Your task to perform on an android device: change your default location settings in chrome Image 0: 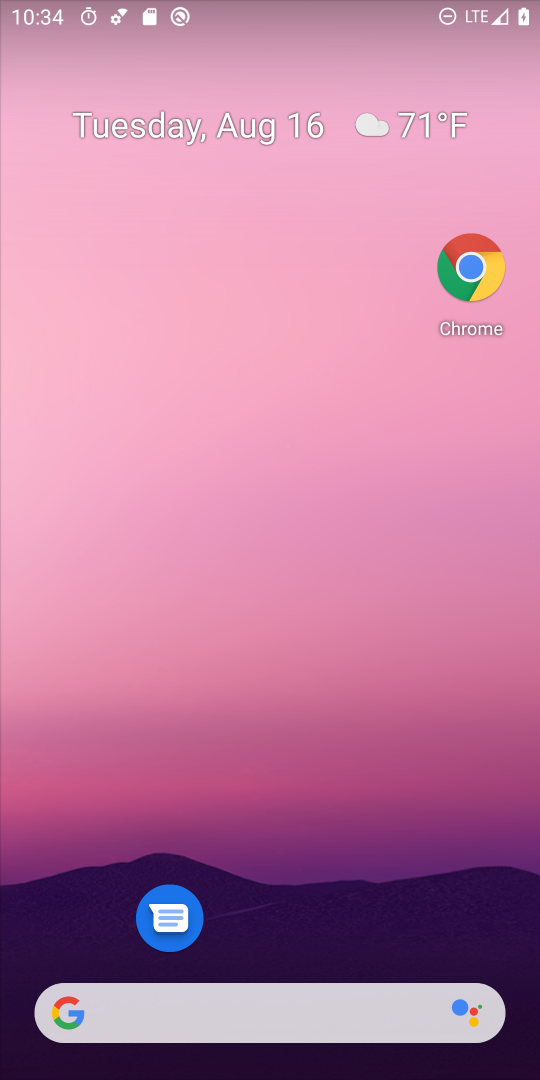
Step 0: drag from (380, 962) to (426, 7)
Your task to perform on an android device: change your default location settings in chrome Image 1: 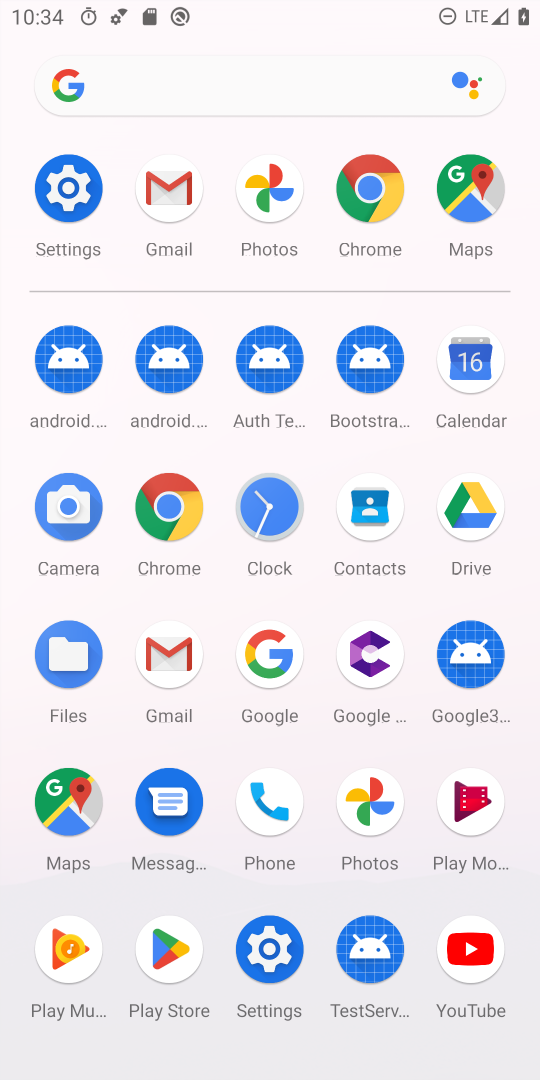
Step 1: click (367, 226)
Your task to perform on an android device: change your default location settings in chrome Image 2: 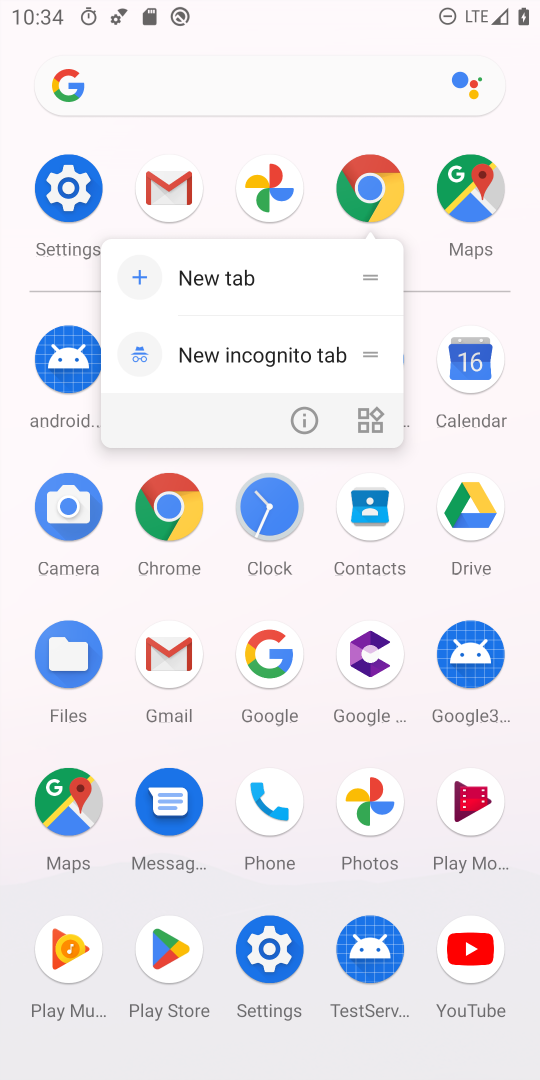
Step 2: click (384, 198)
Your task to perform on an android device: change your default location settings in chrome Image 3: 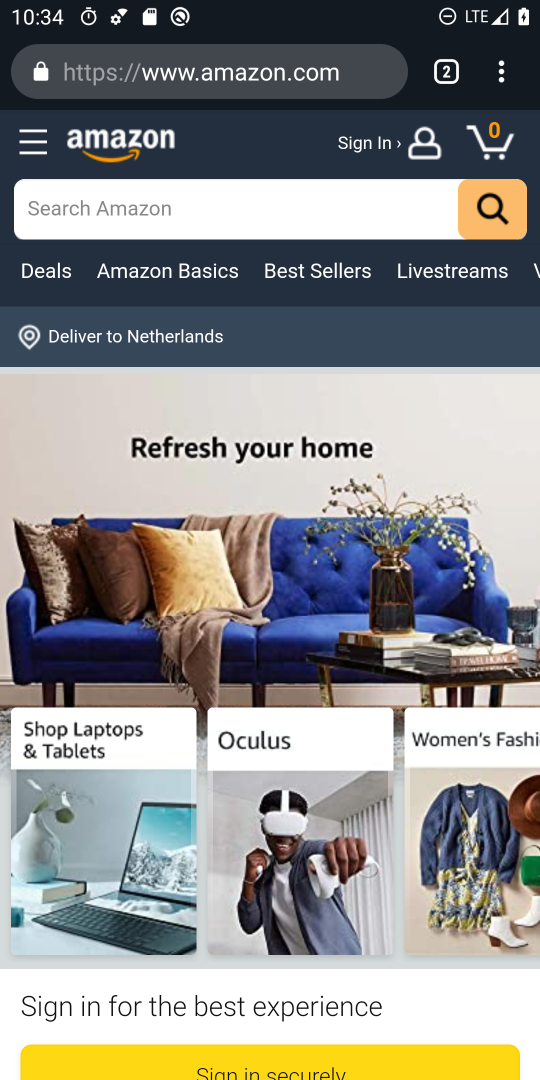
Step 3: click (502, 75)
Your task to perform on an android device: change your default location settings in chrome Image 4: 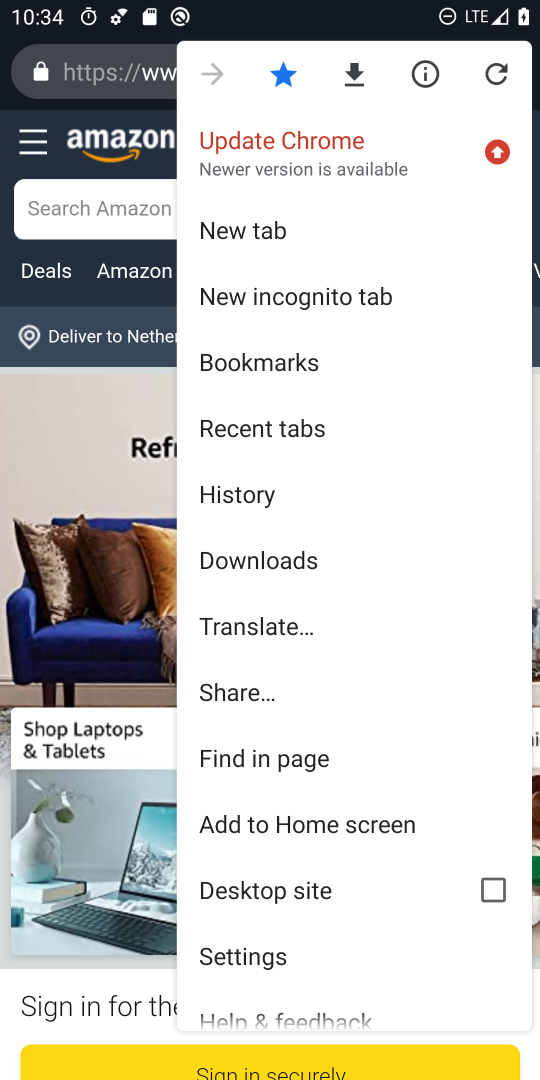
Step 4: click (256, 950)
Your task to perform on an android device: change your default location settings in chrome Image 5: 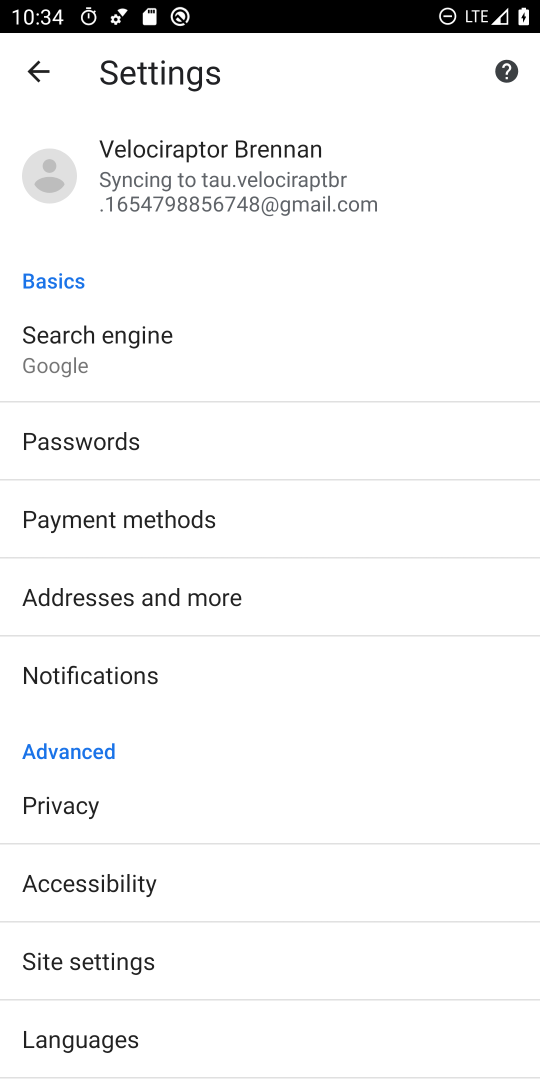
Step 5: drag from (232, 980) to (284, 478)
Your task to perform on an android device: change your default location settings in chrome Image 6: 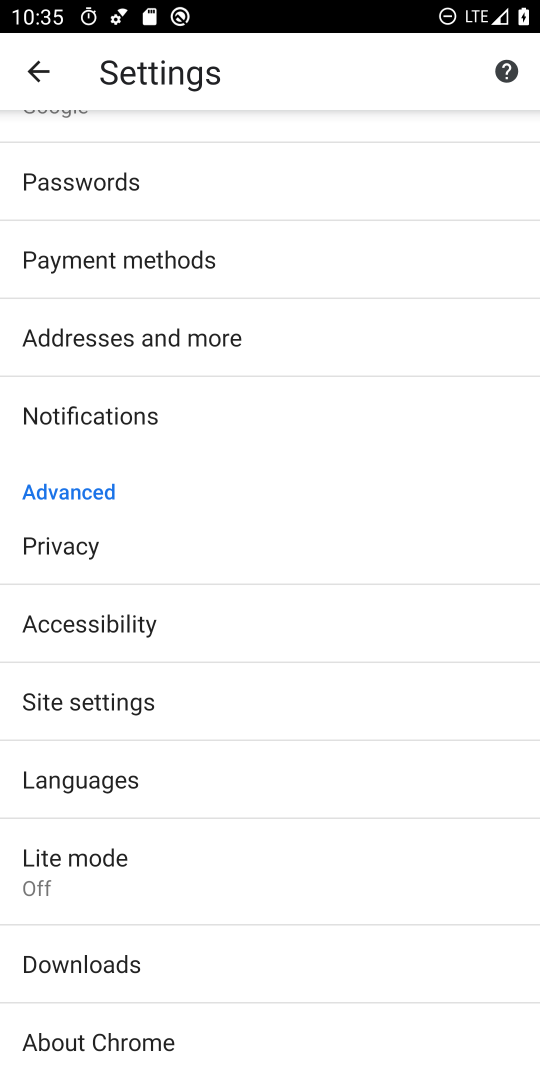
Step 6: click (92, 698)
Your task to perform on an android device: change your default location settings in chrome Image 7: 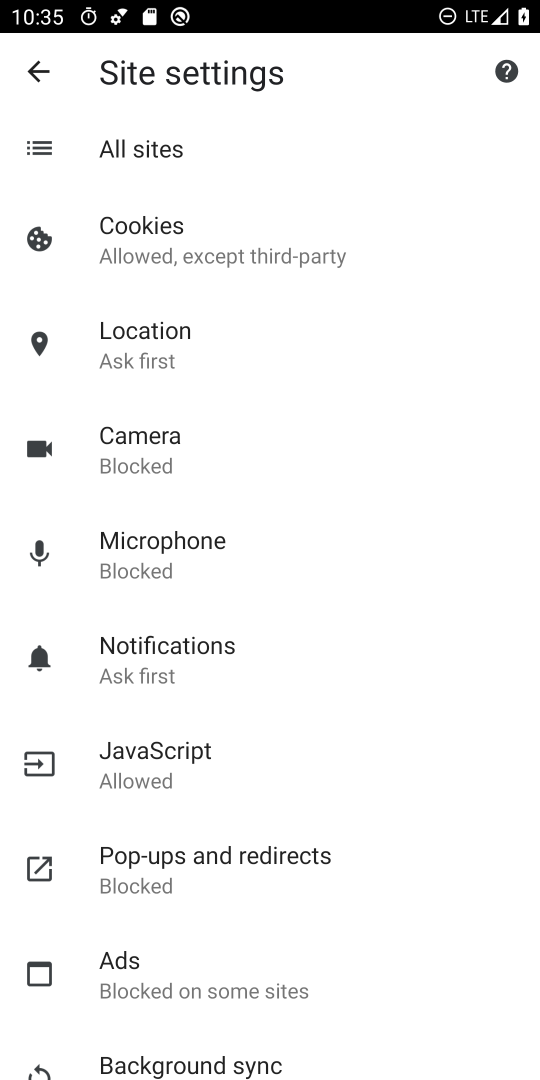
Step 7: click (164, 357)
Your task to perform on an android device: change your default location settings in chrome Image 8: 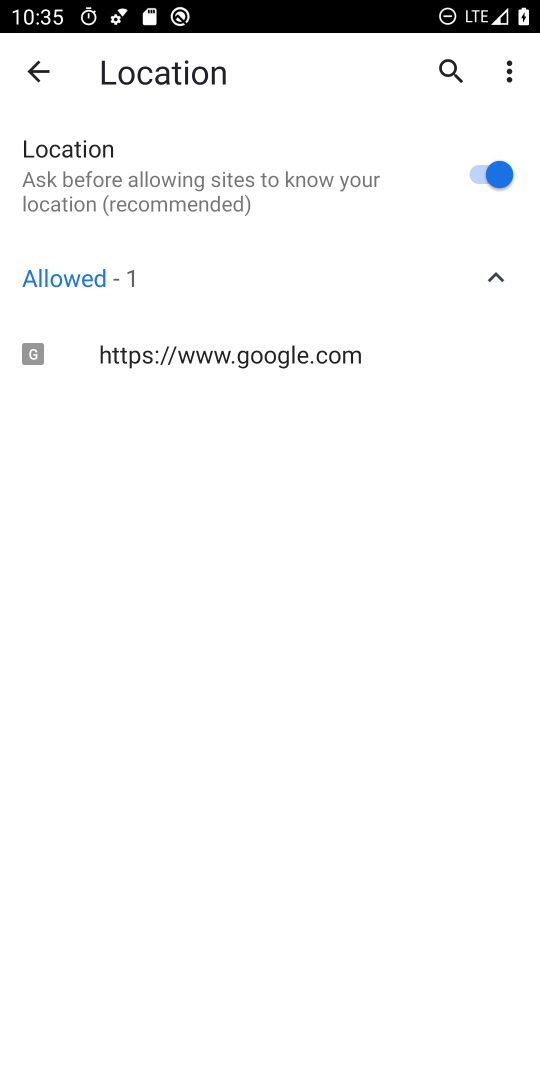
Step 8: click (424, 170)
Your task to perform on an android device: change your default location settings in chrome Image 9: 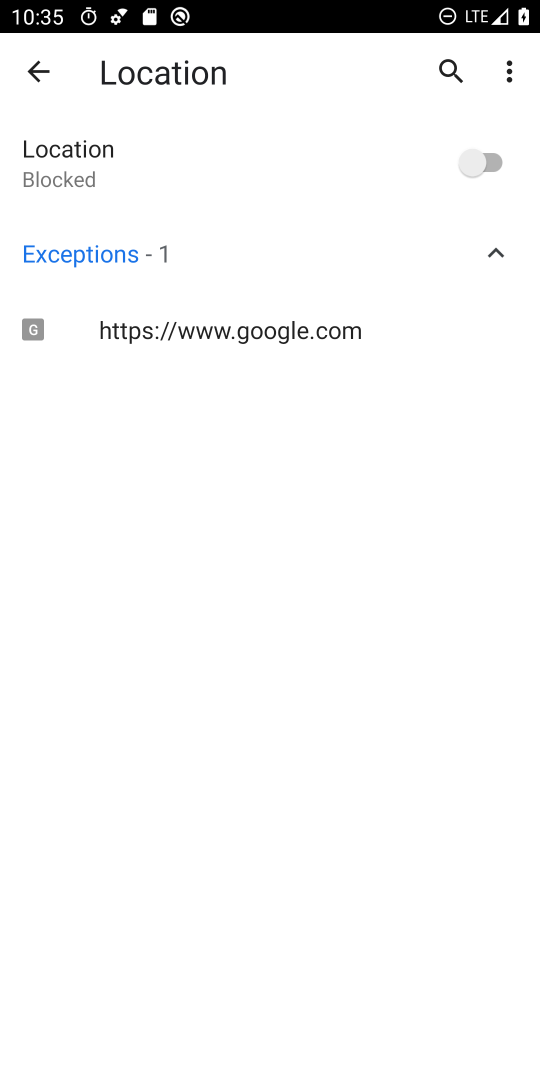
Step 9: task complete